Your task to perform on an android device: Open the web browser Image 0: 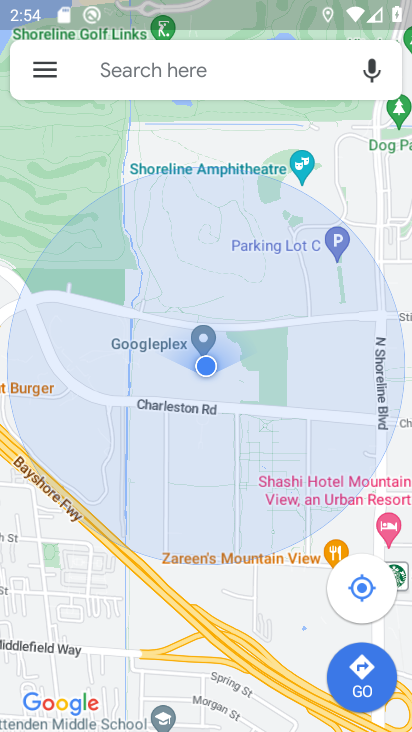
Step 0: press back button
Your task to perform on an android device: Open the web browser Image 1: 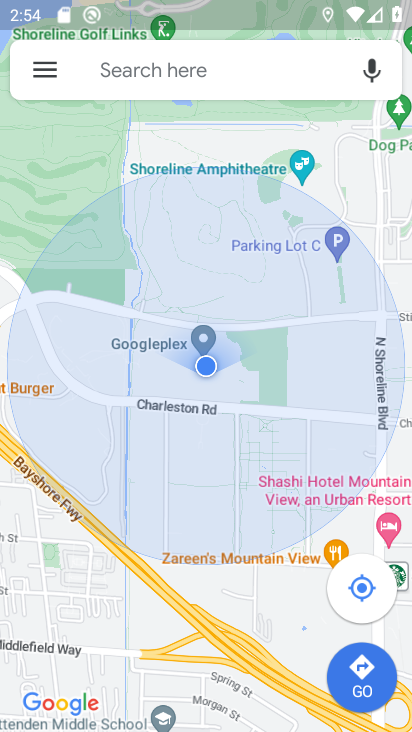
Step 1: press back button
Your task to perform on an android device: Open the web browser Image 2: 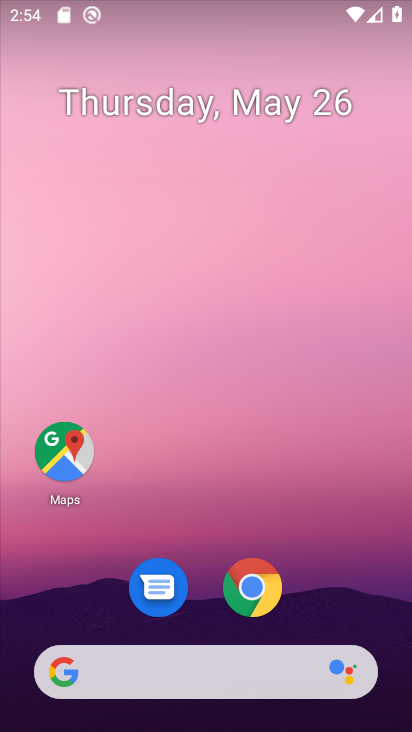
Step 2: drag from (307, 456) to (143, 1)
Your task to perform on an android device: Open the web browser Image 3: 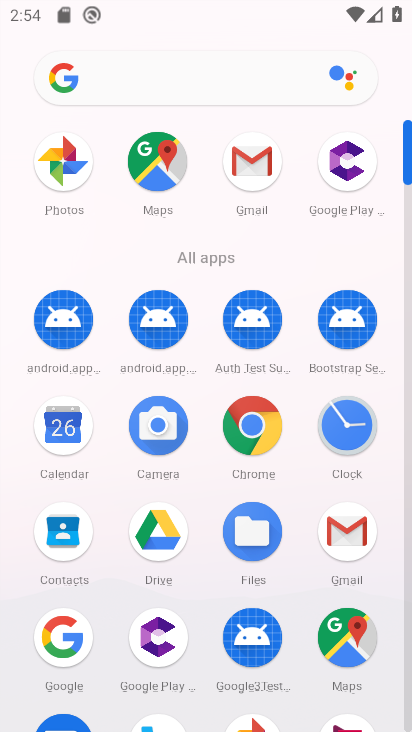
Step 3: click (247, 439)
Your task to perform on an android device: Open the web browser Image 4: 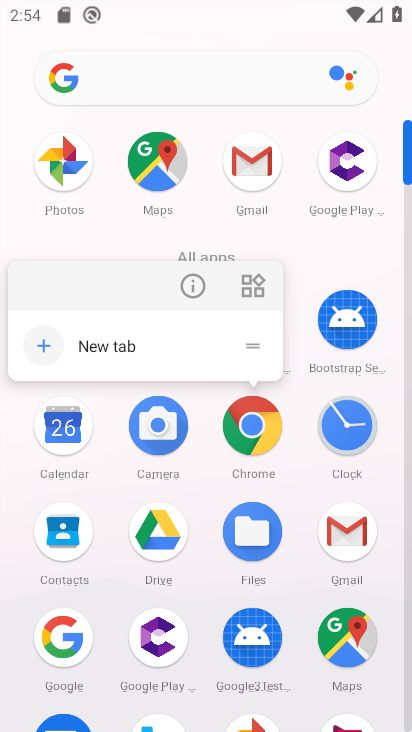
Step 4: click (251, 421)
Your task to perform on an android device: Open the web browser Image 5: 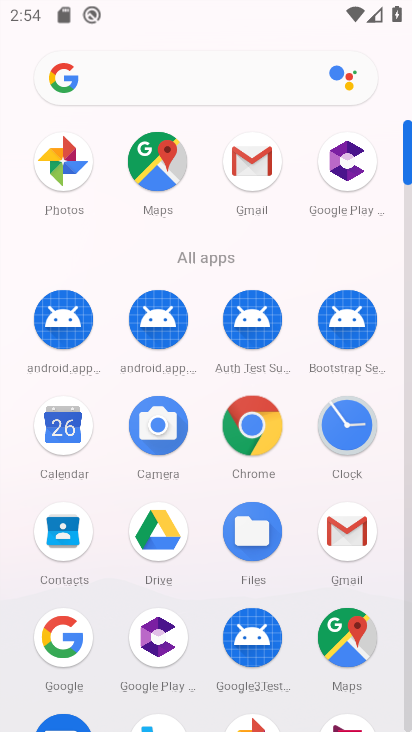
Step 5: click (254, 420)
Your task to perform on an android device: Open the web browser Image 6: 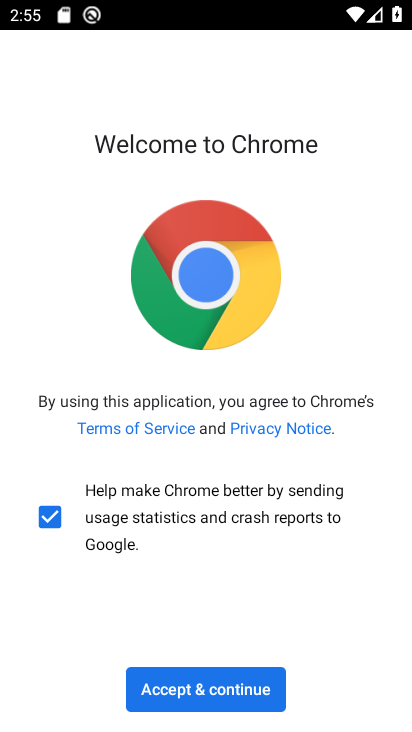
Step 6: click (212, 695)
Your task to perform on an android device: Open the web browser Image 7: 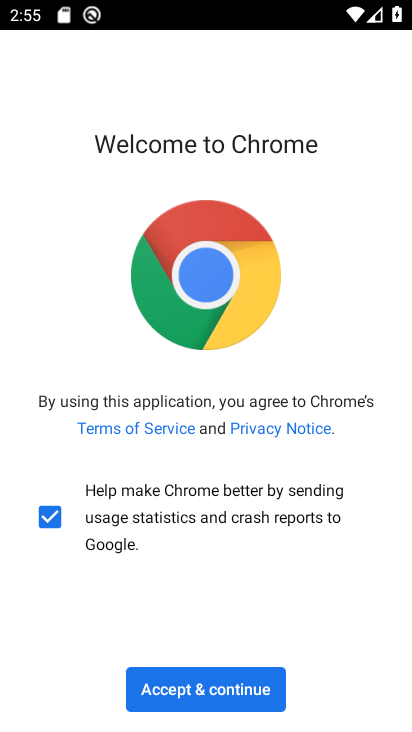
Step 7: click (212, 695)
Your task to perform on an android device: Open the web browser Image 8: 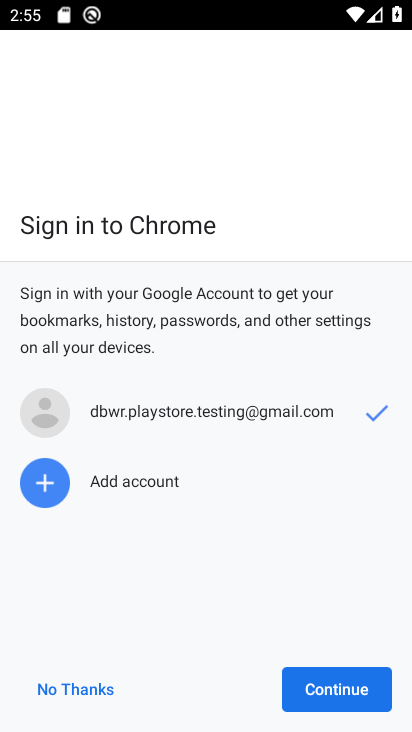
Step 8: click (213, 696)
Your task to perform on an android device: Open the web browser Image 9: 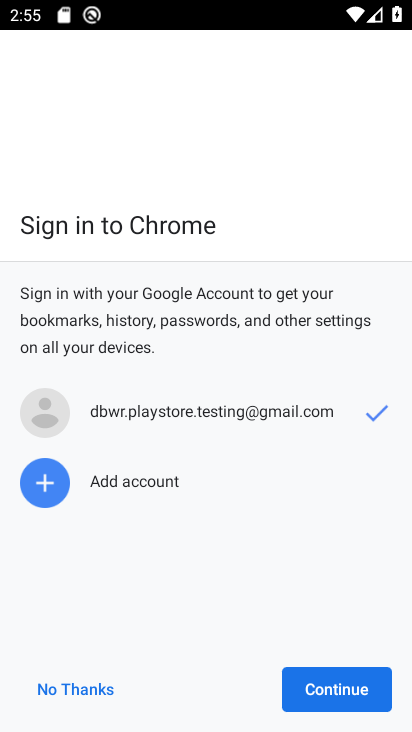
Step 9: click (214, 695)
Your task to perform on an android device: Open the web browser Image 10: 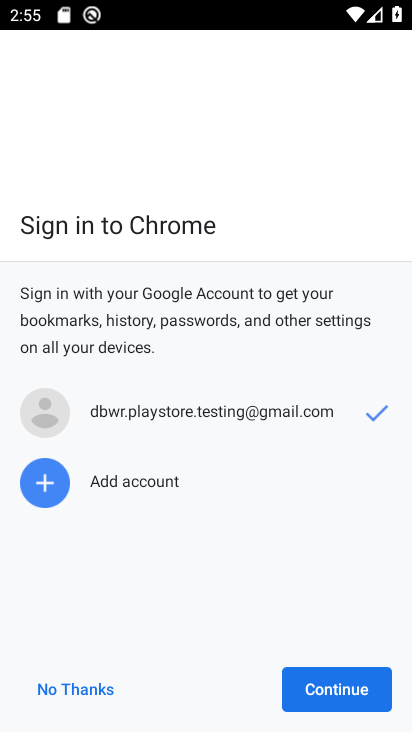
Step 10: click (361, 703)
Your task to perform on an android device: Open the web browser Image 11: 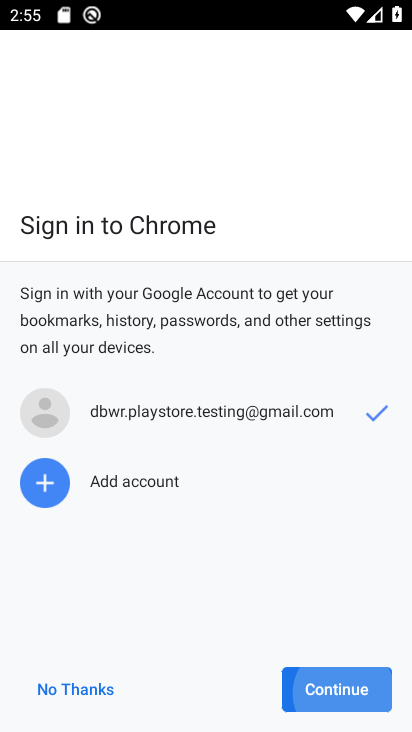
Step 11: click (340, 705)
Your task to perform on an android device: Open the web browser Image 12: 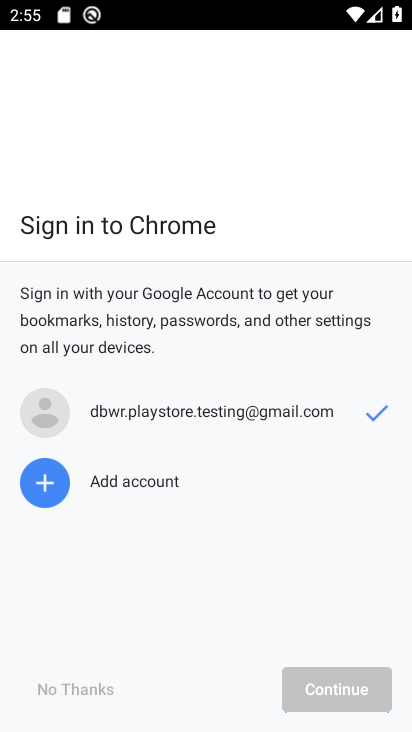
Step 12: click (340, 703)
Your task to perform on an android device: Open the web browser Image 13: 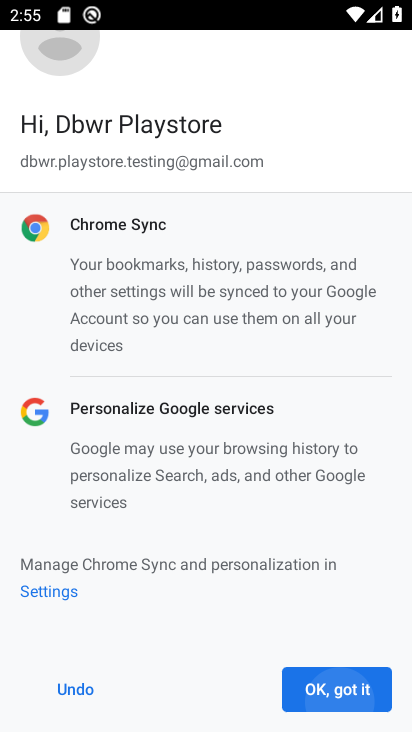
Step 13: click (338, 694)
Your task to perform on an android device: Open the web browser Image 14: 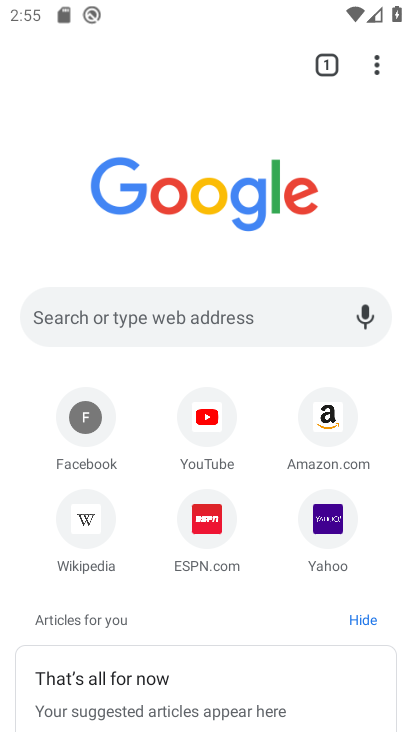
Step 14: press back button
Your task to perform on an android device: Open the web browser Image 15: 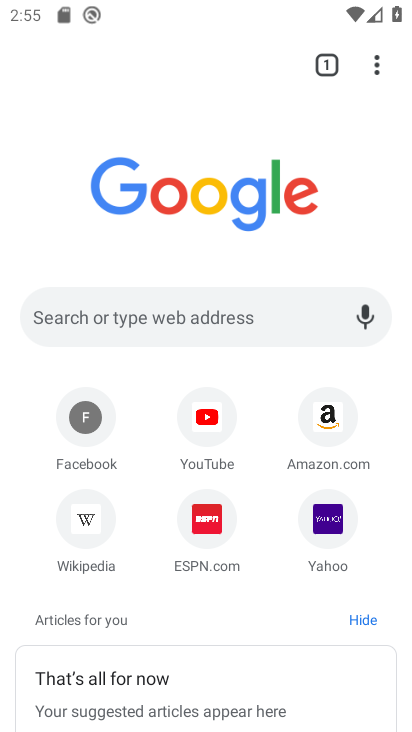
Step 15: press back button
Your task to perform on an android device: Open the web browser Image 16: 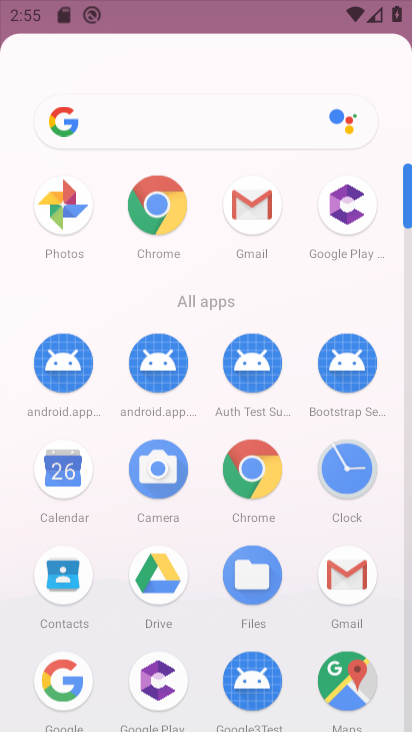
Step 16: press back button
Your task to perform on an android device: Open the web browser Image 17: 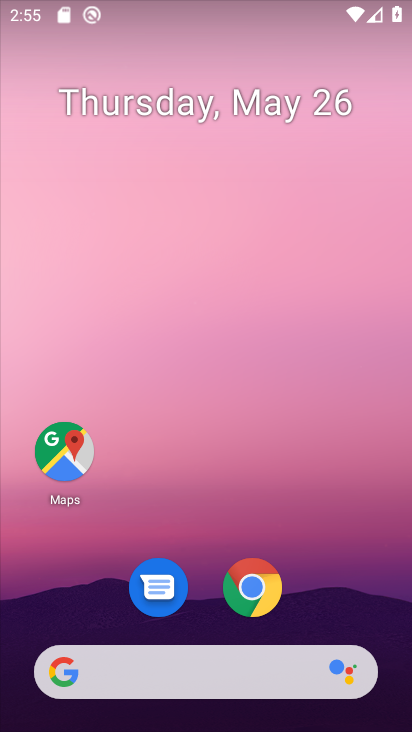
Step 17: drag from (200, 537) to (155, 40)
Your task to perform on an android device: Open the web browser Image 18: 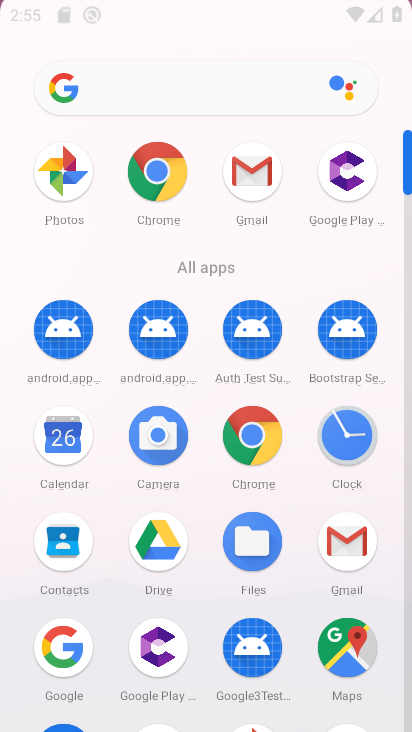
Step 18: drag from (223, 497) to (189, 137)
Your task to perform on an android device: Open the web browser Image 19: 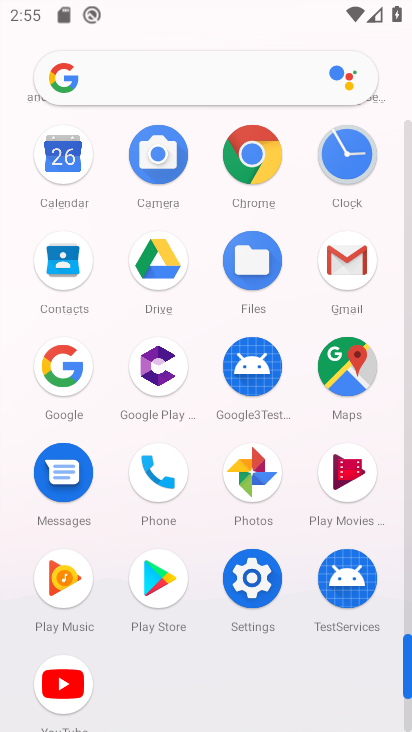
Step 19: click (257, 158)
Your task to perform on an android device: Open the web browser Image 20: 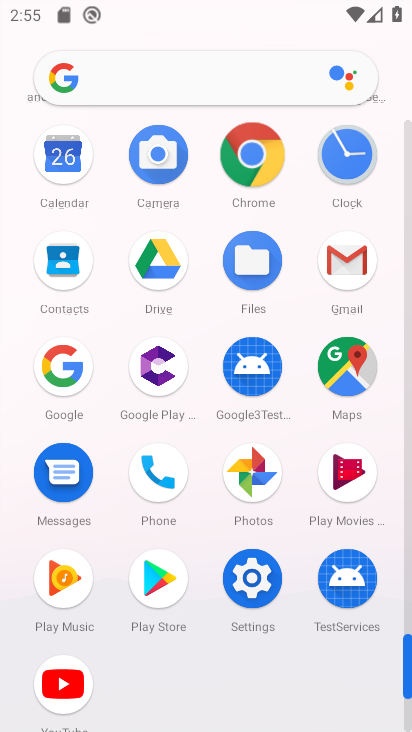
Step 20: click (258, 157)
Your task to perform on an android device: Open the web browser Image 21: 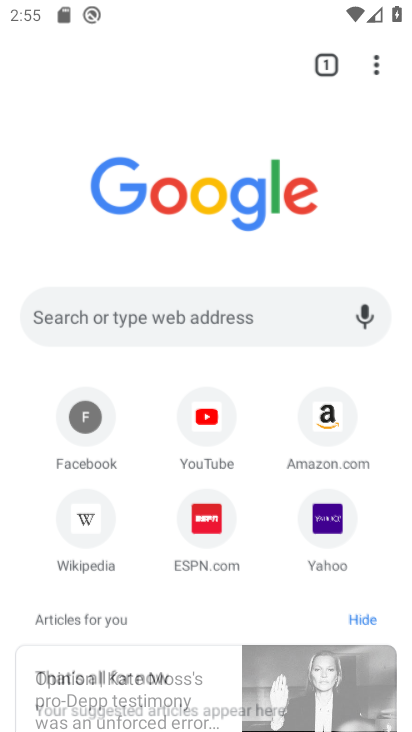
Step 21: click (241, 176)
Your task to perform on an android device: Open the web browser Image 22: 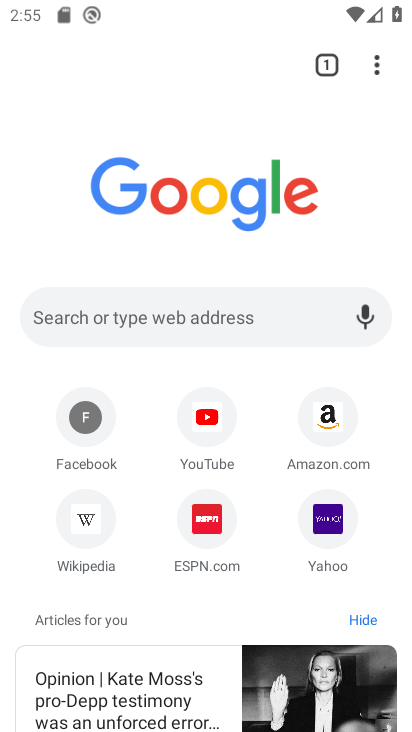
Step 22: click (70, 322)
Your task to perform on an android device: Open the web browser Image 23: 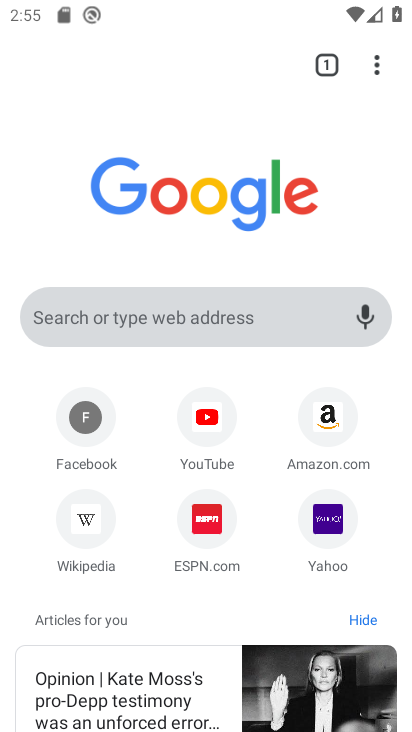
Step 23: click (70, 322)
Your task to perform on an android device: Open the web browser Image 24: 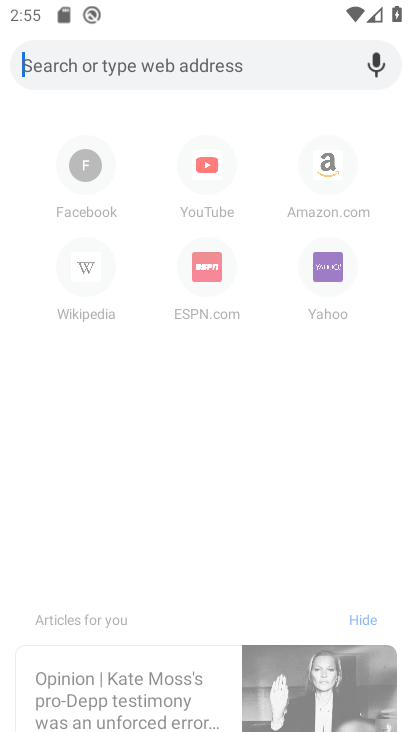
Step 24: click (66, 332)
Your task to perform on an android device: Open the web browser Image 25: 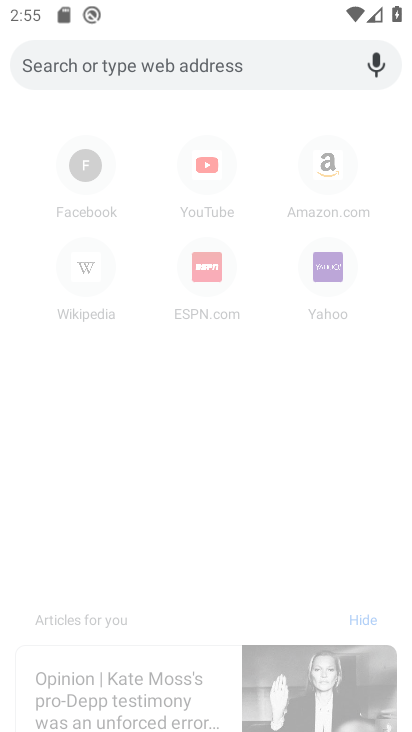
Step 25: click (72, 333)
Your task to perform on an android device: Open the web browser Image 26: 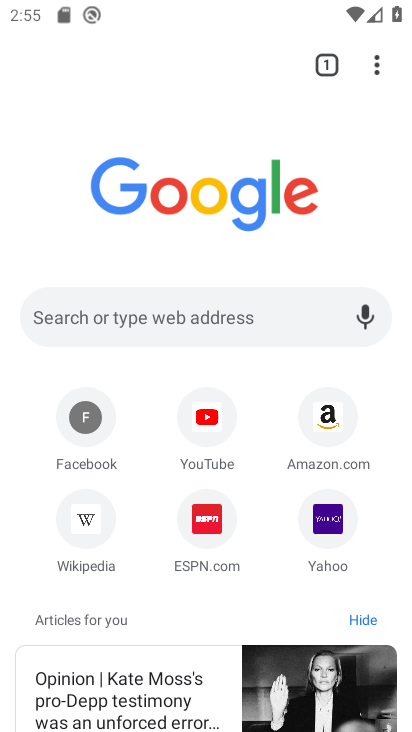
Step 26: task complete